Your task to perform on an android device: set an alarm Image 0: 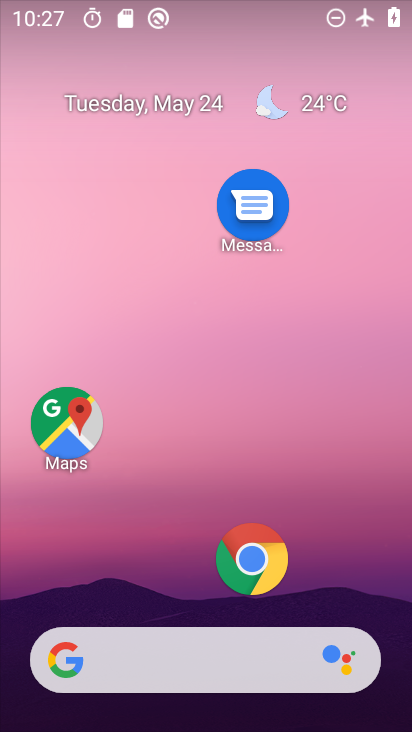
Step 0: drag from (204, 612) to (179, 238)
Your task to perform on an android device: set an alarm Image 1: 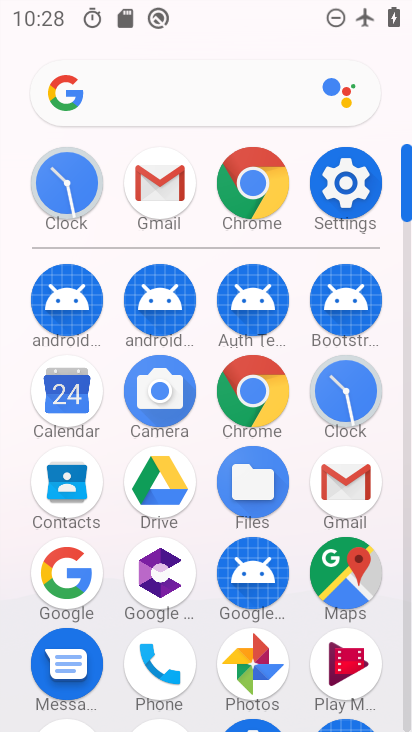
Step 1: click (350, 399)
Your task to perform on an android device: set an alarm Image 2: 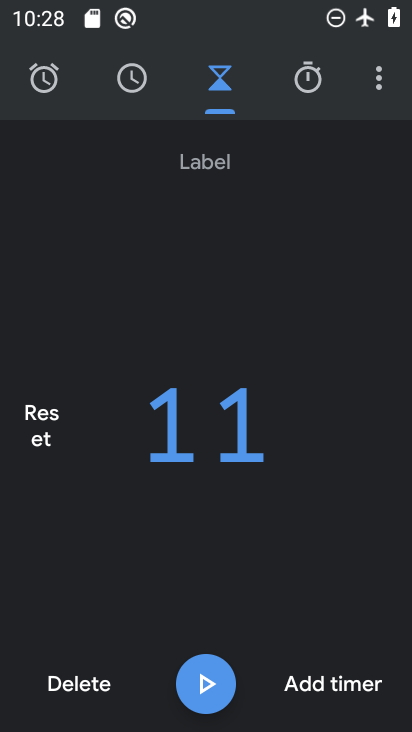
Step 2: click (38, 85)
Your task to perform on an android device: set an alarm Image 3: 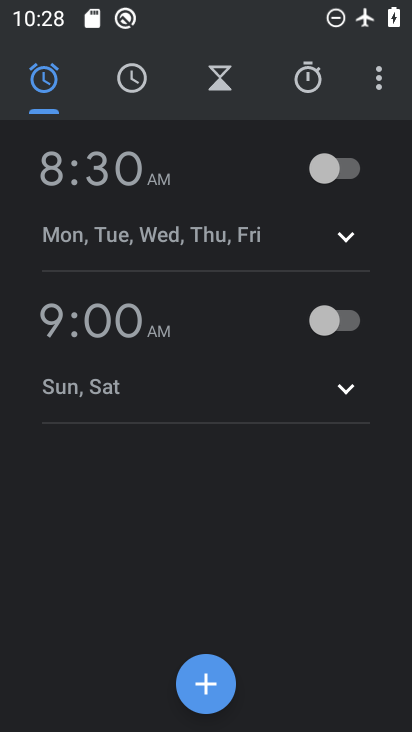
Step 3: click (343, 160)
Your task to perform on an android device: set an alarm Image 4: 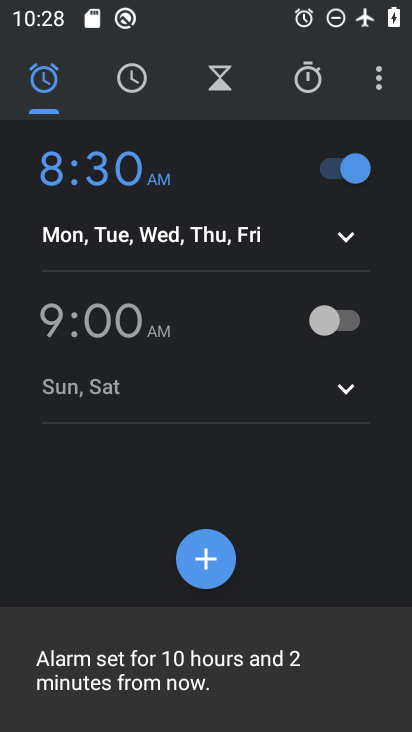
Step 4: task complete